Your task to perform on an android device: toggle javascript in the chrome app Image 0: 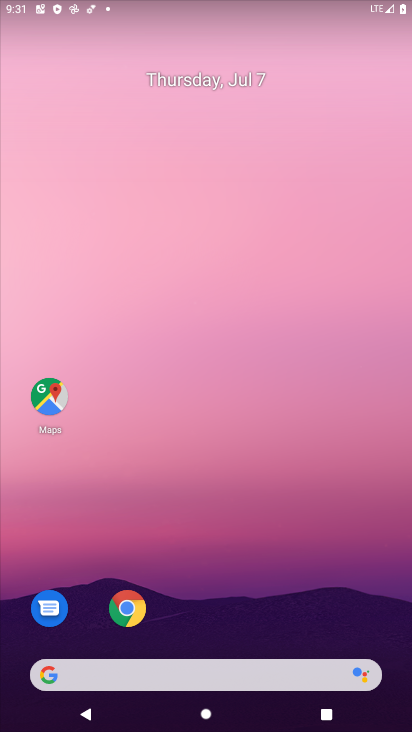
Step 0: drag from (210, 631) to (291, 86)
Your task to perform on an android device: toggle javascript in the chrome app Image 1: 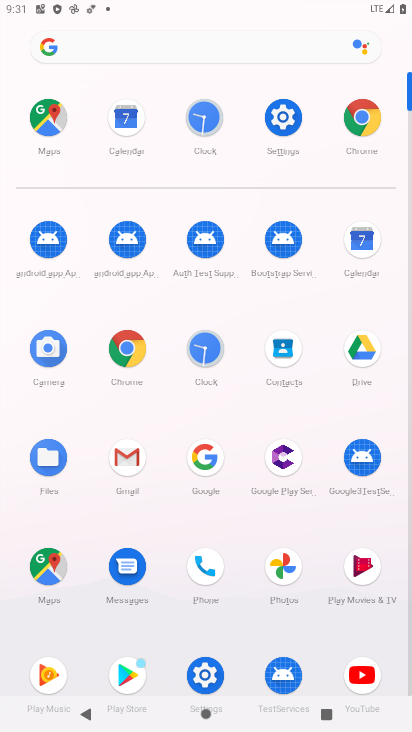
Step 1: click (126, 350)
Your task to perform on an android device: toggle javascript in the chrome app Image 2: 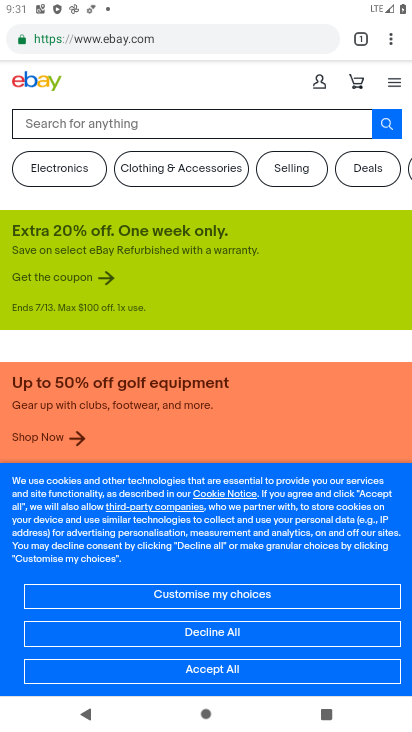
Step 2: click (385, 37)
Your task to perform on an android device: toggle javascript in the chrome app Image 3: 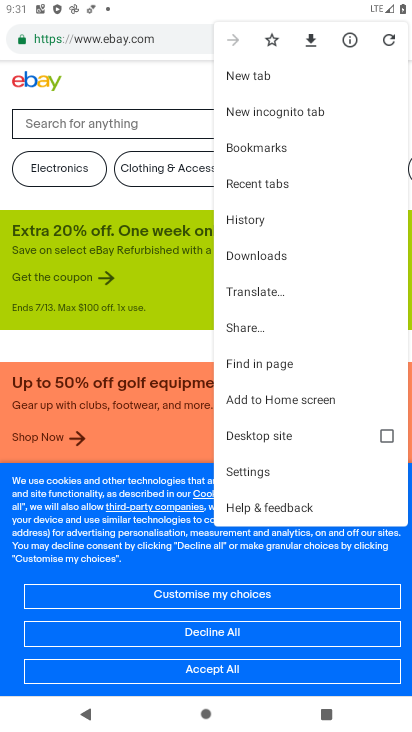
Step 3: click (256, 470)
Your task to perform on an android device: toggle javascript in the chrome app Image 4: 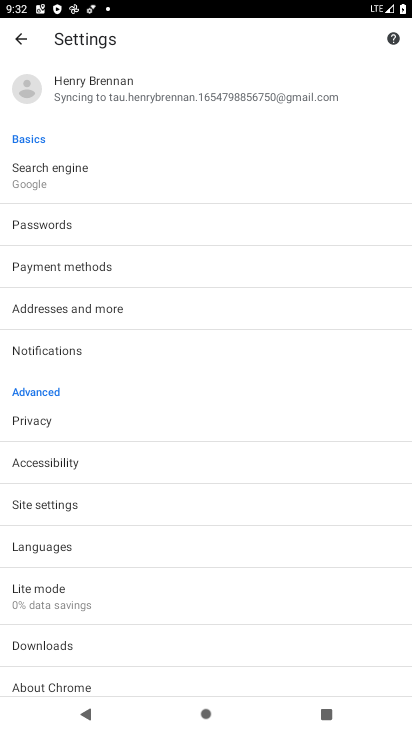
Step 4: click (72, 509)
Your task to perform on an android device: toggle javascript in the chrome app Image 5: 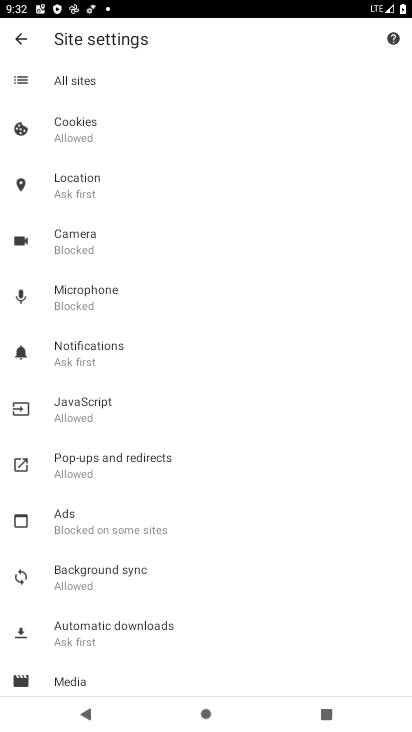
Step 5: click (100, 405)
Your task to perform on an android device: toggle javascript in the chrome app Image 6: 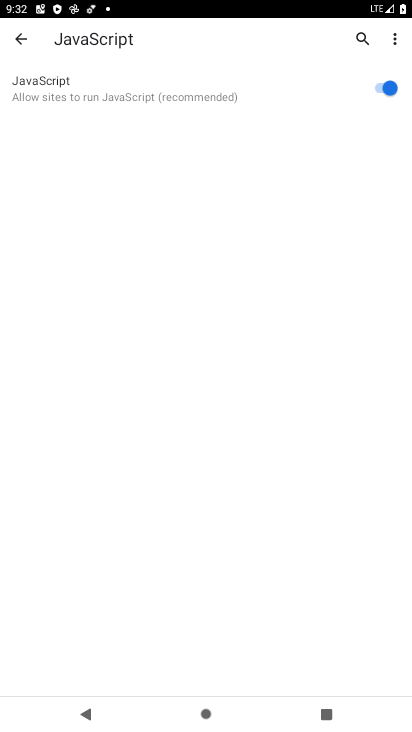
Step 6: click (386, 92)
Your task to perform on an android device: toggle javascript in the chrome app Image 7: 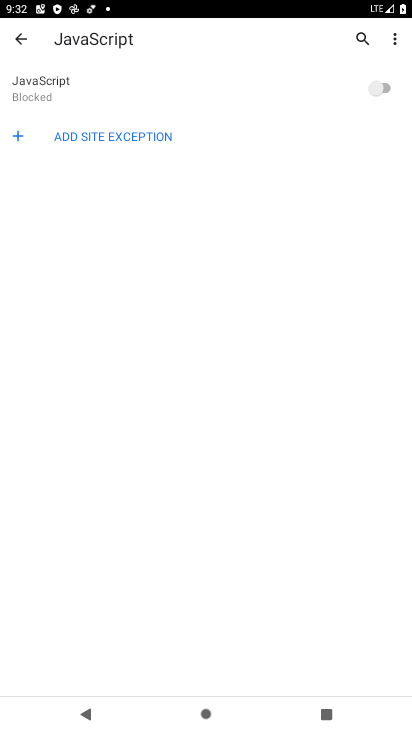
Step 7: task complete